Your task to perform on an android device: Open Google Chrome Image 0: 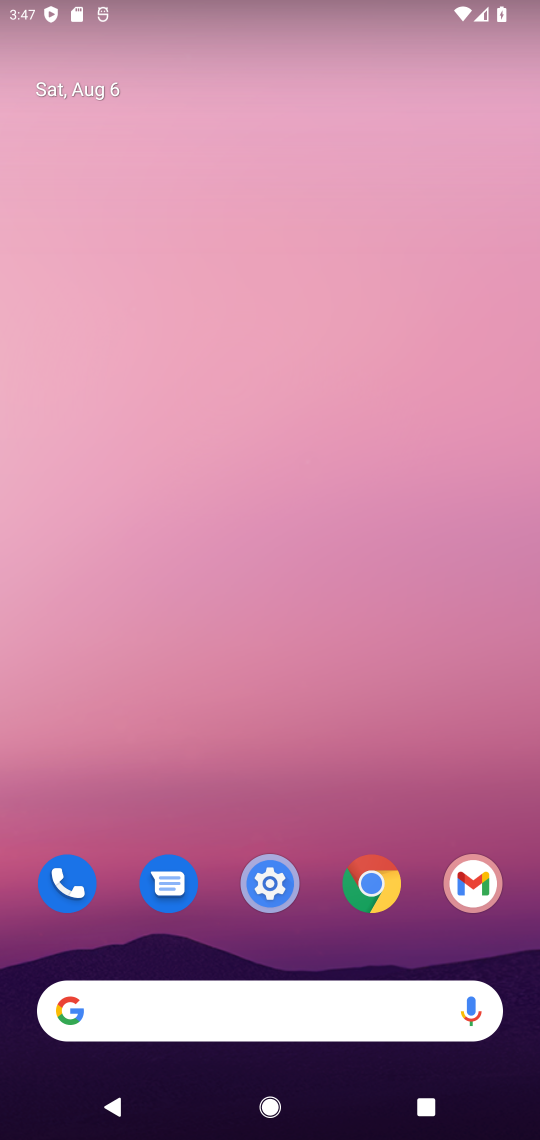
Step 0: drag from (251, 944) to (357, 0)
Your task to perform on an android device: Open Google Chrome Image 1: 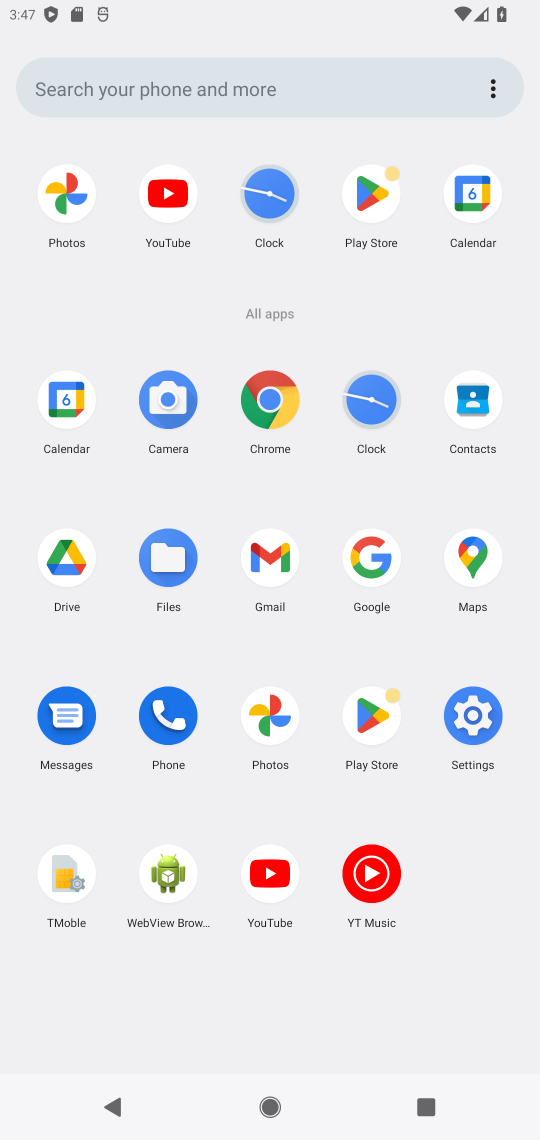
Step 1: click (292, 423)
Your task to perform on an android device: Open Google Chrome Image 2: 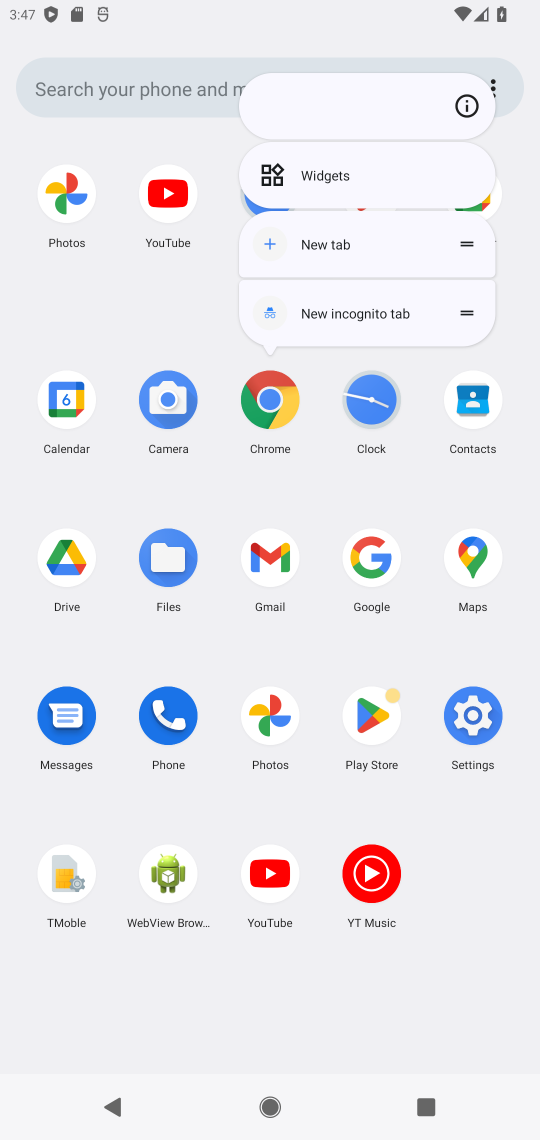
Step 2: click (287, 425)
Your task to perform on an android device: Open Google Chrome Image 3: 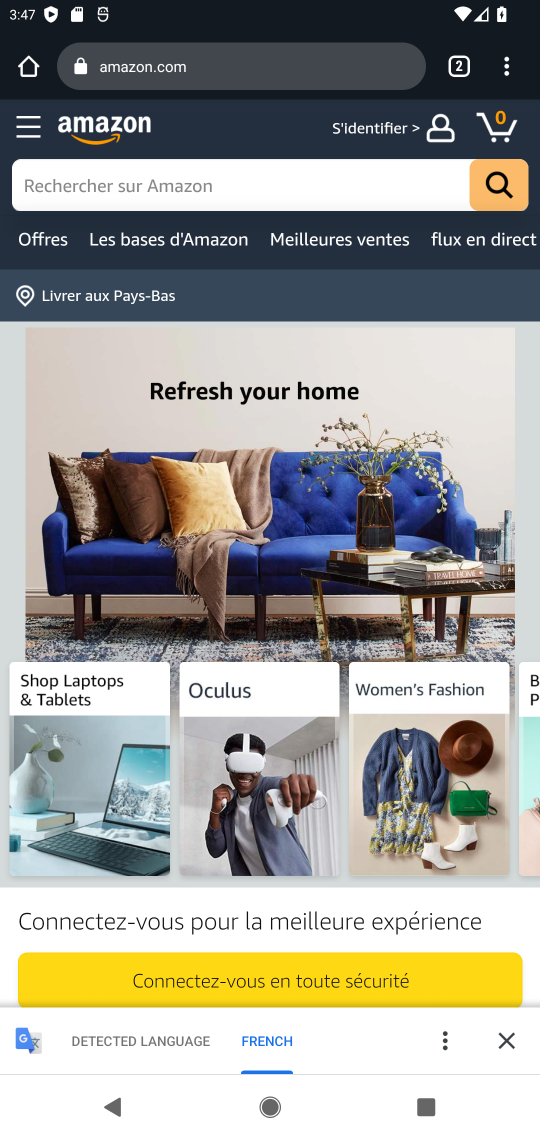
Step 3: task complete